Your task to perform on an android device: check battery use Image 0: 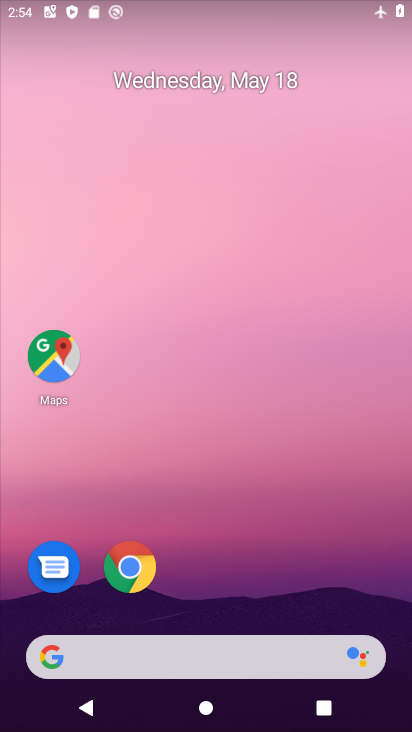
Step 0: drag from (201, 526) to (207, 209)
Your task to perform on an android device: check battery use Image 1: 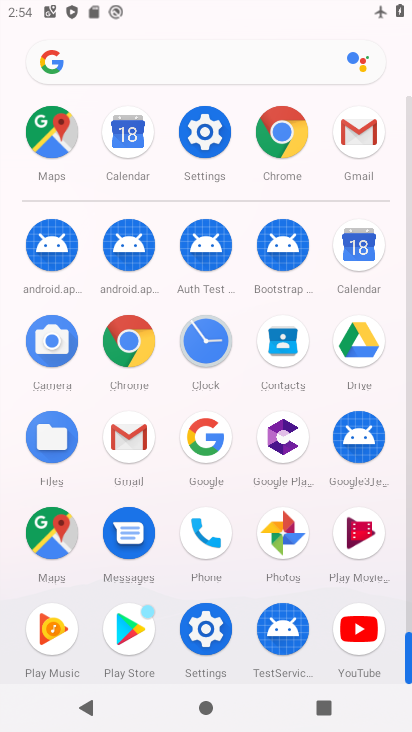
Step 1: click (208, 124)
Your task to perform on an android device: check battery use Image 2: 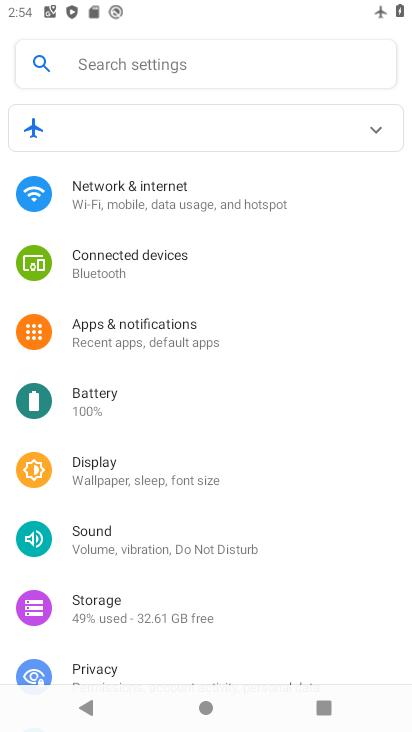
Step 2: click (113, 393)
Your task to perform on an android device: check battery use Image 3: 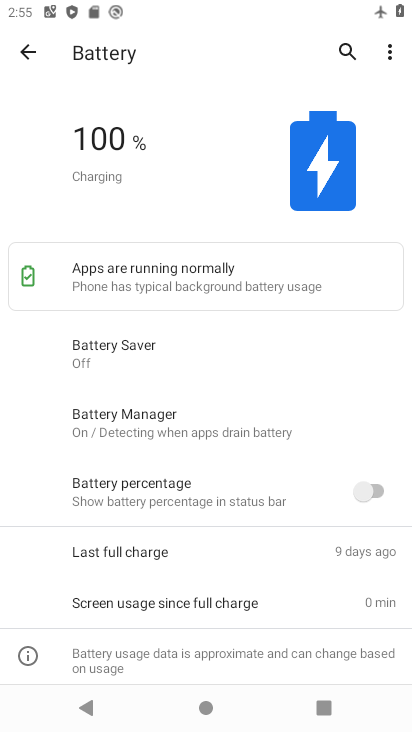
Step 3: task complete